Your task to perform on an android device: check data usage Image 0: 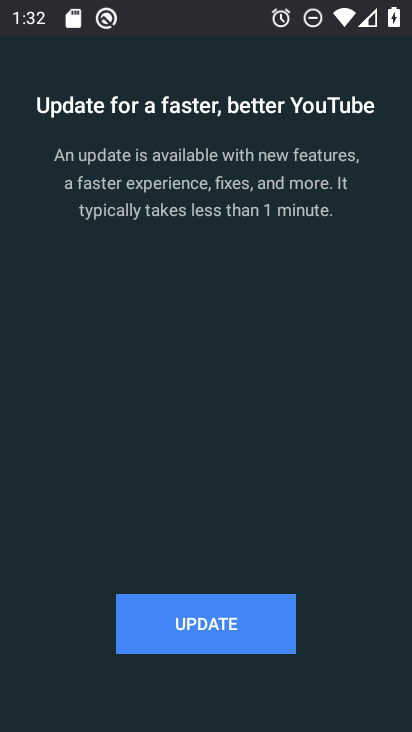
Step 0: press home button
Your task to perform on an android device: check data usage Image 1: 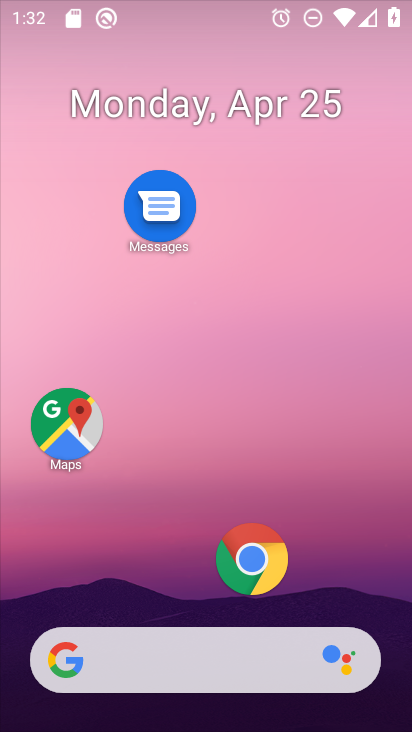
Step 1: drag from (165, 566) to (225, 79)
Your task to perform on an android device: check data usage Image 2: 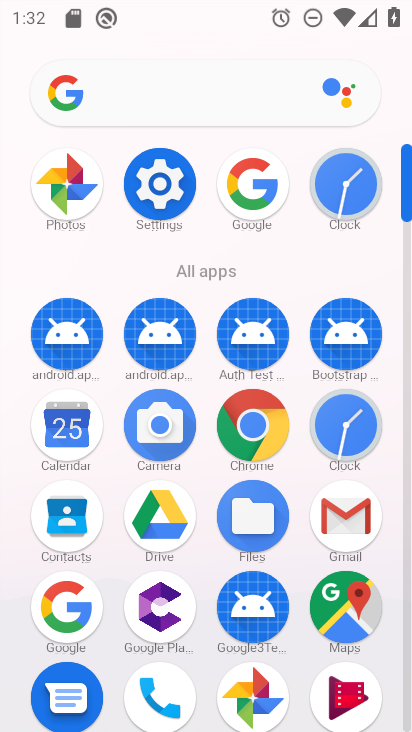
Step 2: click (158, 189)
Your task to perform on an android device: check data usage Image 3: 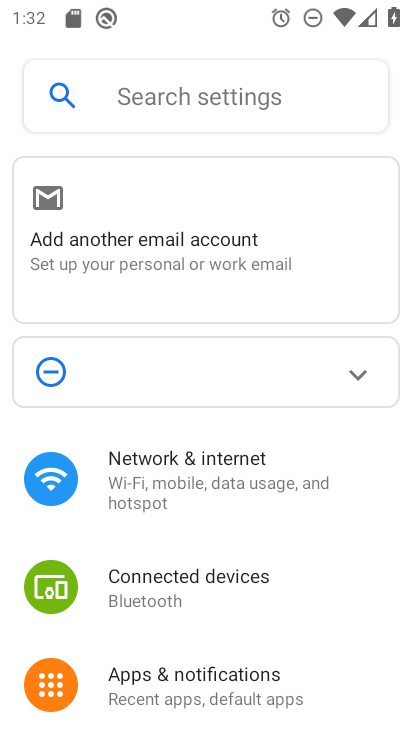
Step 3: click (173, 479)
Your task to perform on an android device: check data usage Image 4: 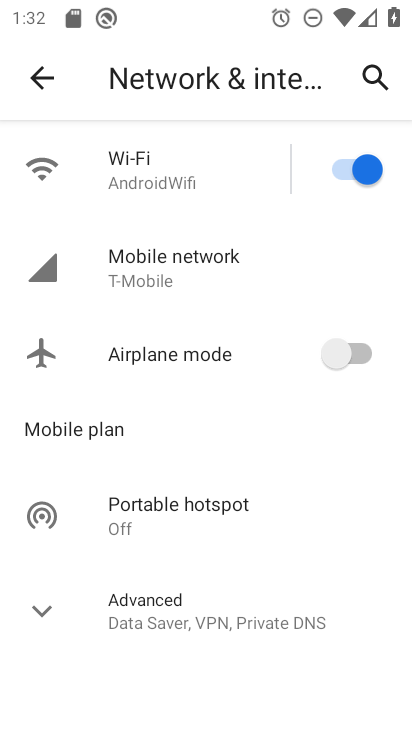
Step 4: click (165, 273)
Your task to perform on an android device: check data usage Image 5: 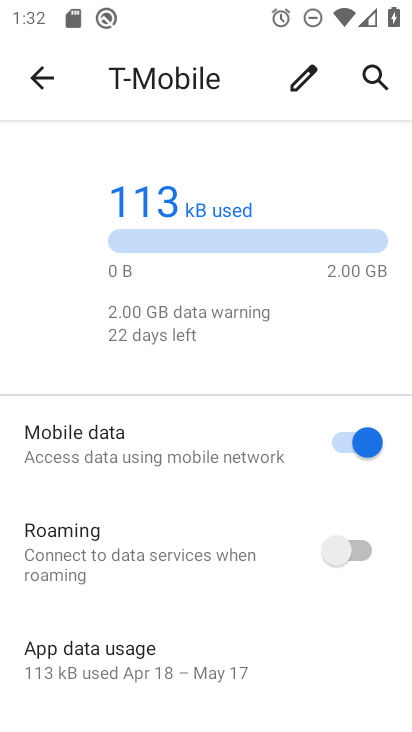
Step 5: task complete